Your task to perform on an android device: change the clock style Image 0: 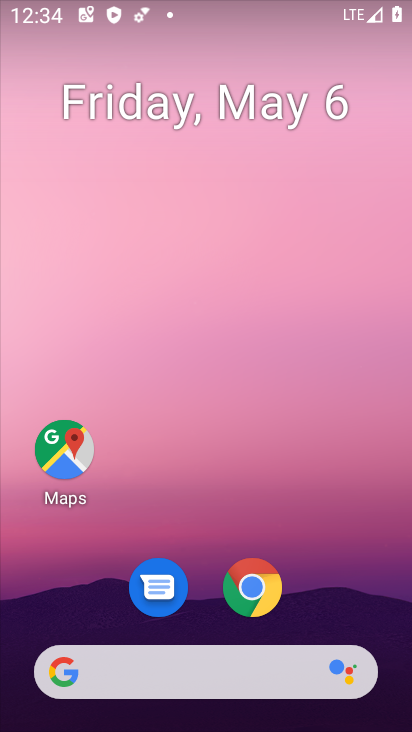
Step 0: drag from (190, 603) to (275, 67)
Your task to perform on an android device: change the clock style Image 1: 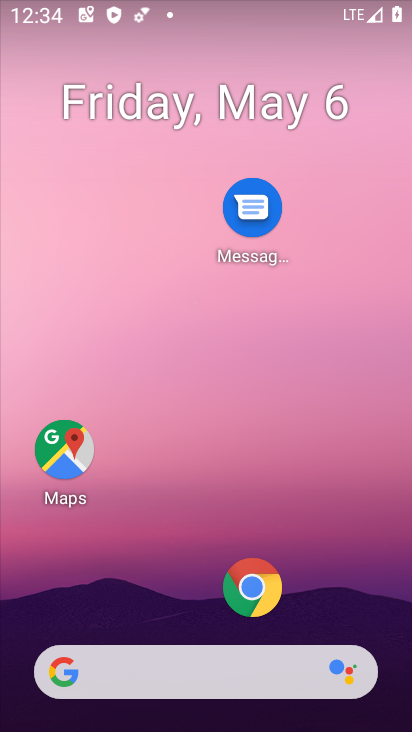
Step 1: drag from (157, 525) to (174, 155)
Your task to perform on an android device: change the clock style Image 2: 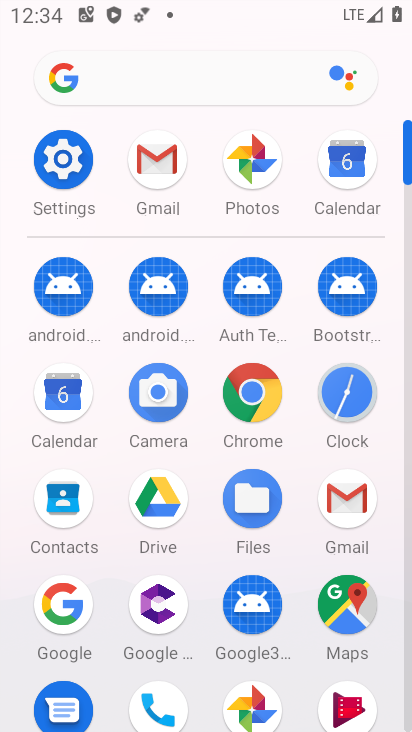
Step 2: click (349, 396)
Your task to perform on an android device: change the clock style Image 3: 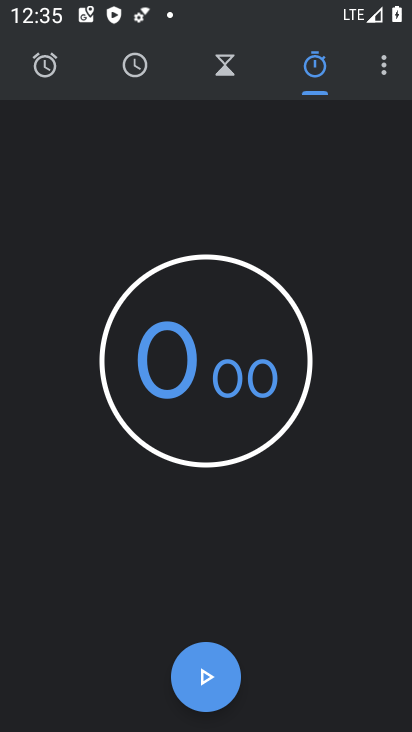
Step 3: click (387, 70)
Your task to perform on an android device: change the clock style Image 4: 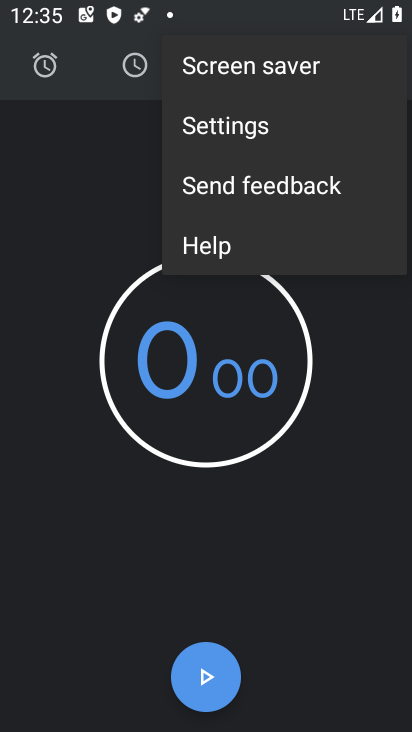
Step 4: click (237, 132)
Your task to perform on an android device: change the clock style Image 5: 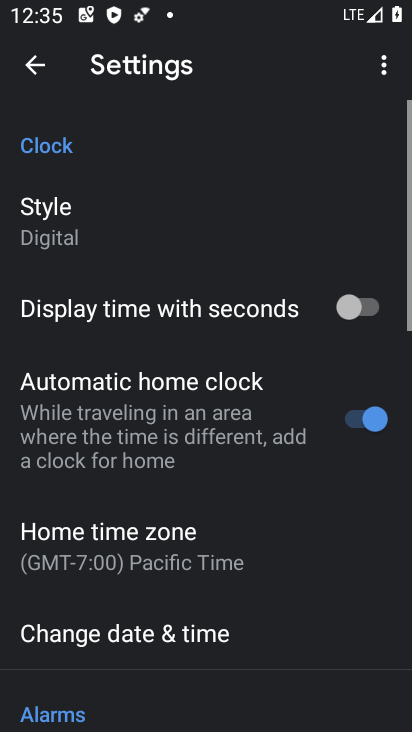
Step 5: click (131, 245)
Your task to perform on an android device: change the clock style Image 6: 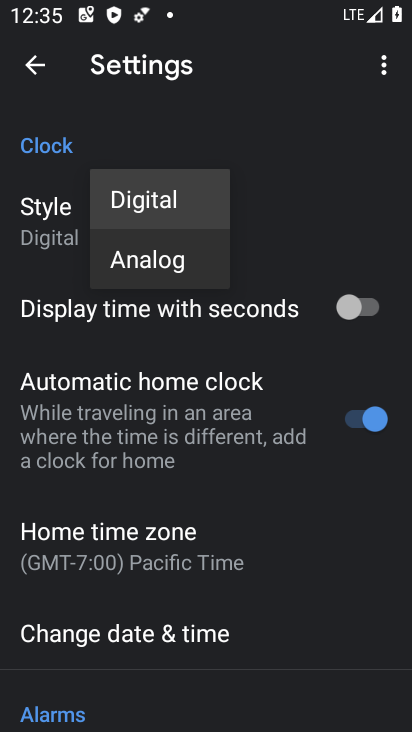
Step 6: click (161, 265)
Your task to perform on an android device: change the clock style Image 7: 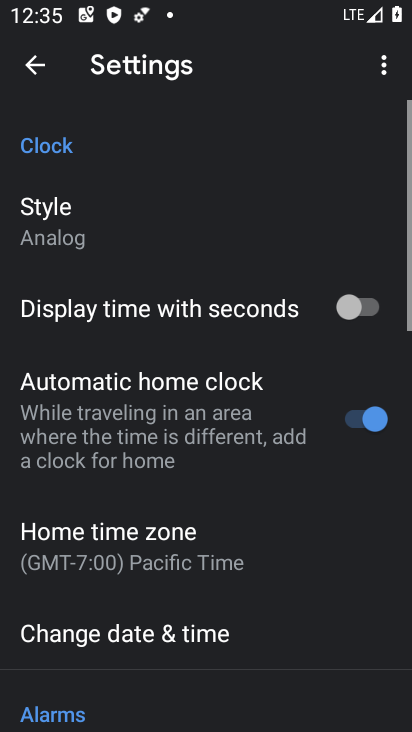
Step 7: task complete